Your task to perform on an android device: Search for Mexican restaurants on Maps Image 0: 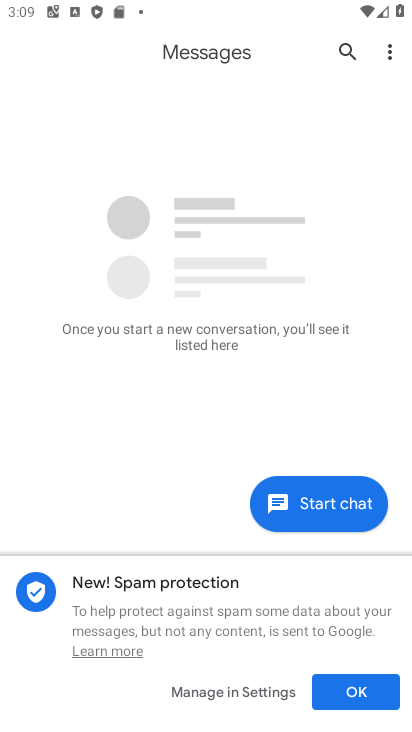
Step 0: press home button
Your task to perform on an android device: Search for Mexican restaurants on Maps Image 1: 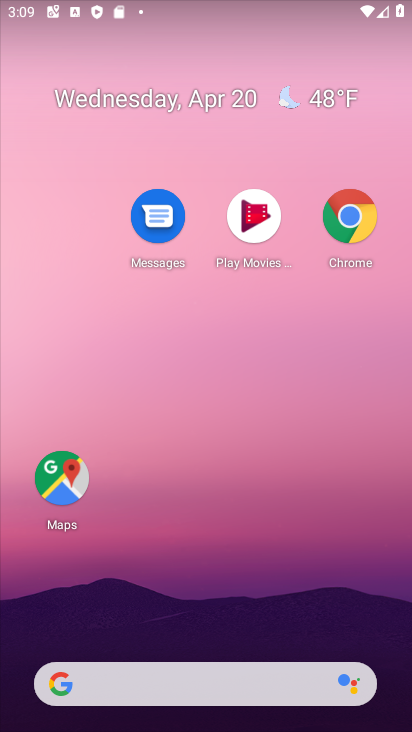
Step 1: click (71, 497)
Your task to perform on an android device: Search for Mexican restaurants on Maps Image 2: 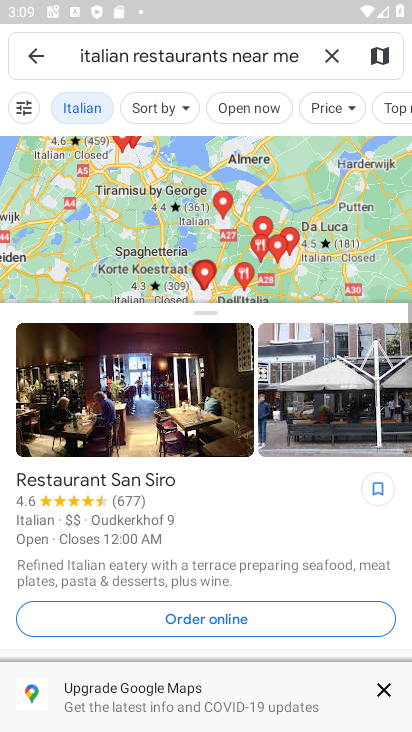
Step 2: click (320, 60)
Your task to perform on an android device: Search for Mexican restaurants on Maps Image 3: 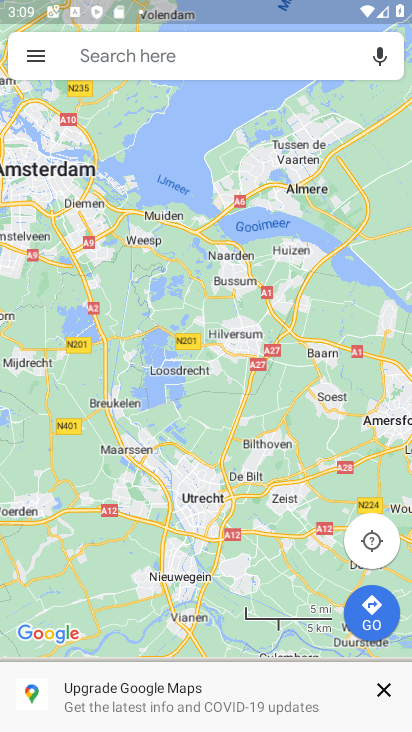
Step 3: click (208, 64)
Your task to perform on an android device: Search for Mexican restaurants on Maps Image 4: 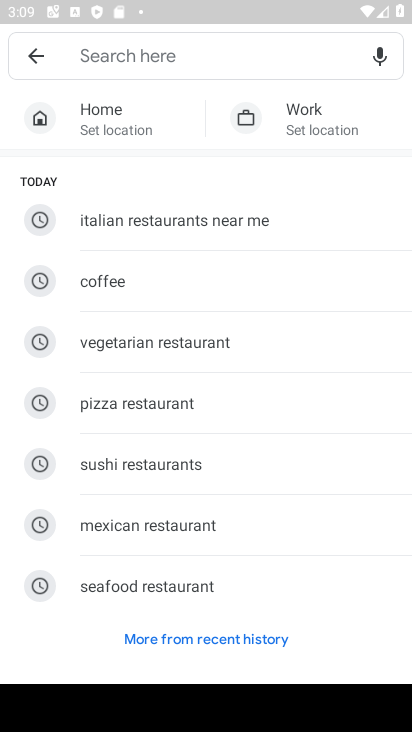
Step 4: click (131, 538)
Your task to perform on an android device: Search for Mexican restaurants on Maps Image 5: 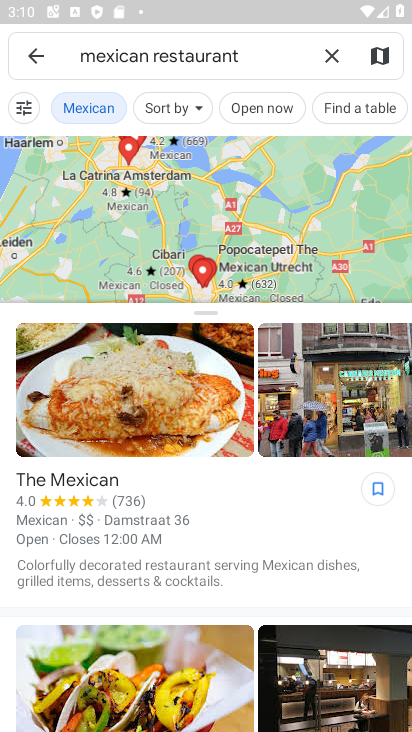
Step 5: task complete